Your task to perform on an android device: Turn off the flashlight Image 0: 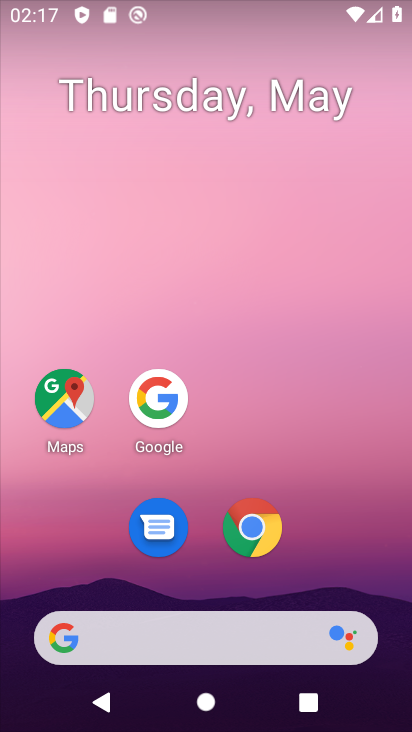
Step 0: drag from (191, 592) to (202, 136)
Your task to perform on an android device: Turn off the flashlight Image 1: 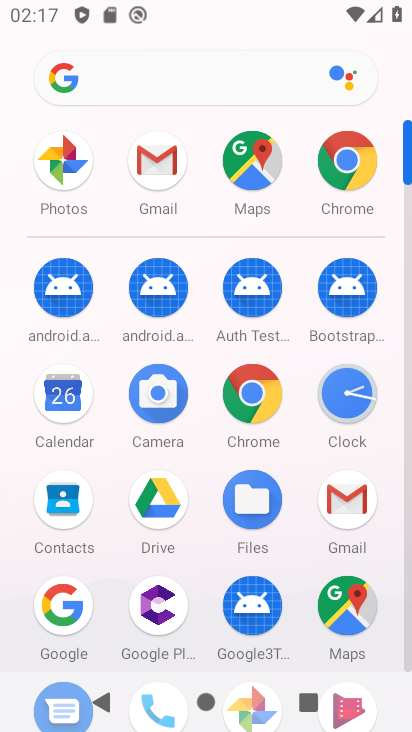
Step 1: drag from (193, 574) to (231, 200)
Your task to perform on an android device: Turn off the flashlight Image 2: 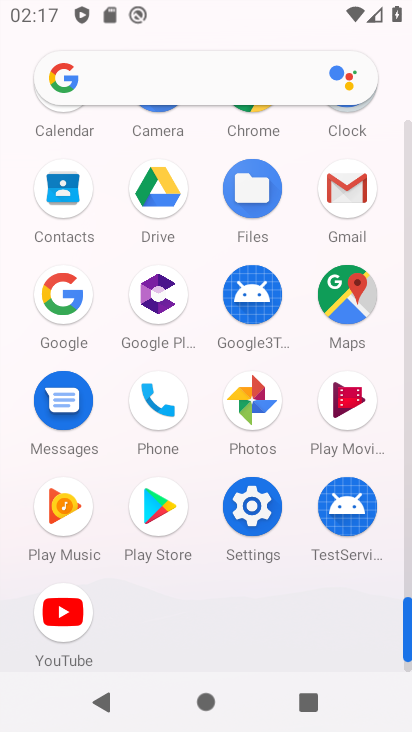
Step 2: click (240, 500)
Your task to perform on an android device: Turn off the flashlight Image 3: 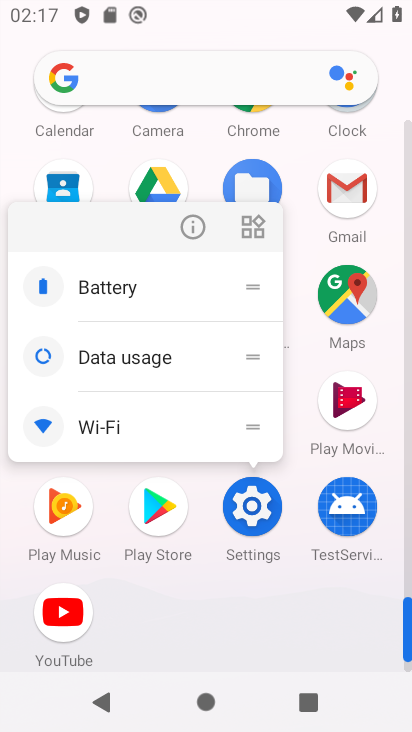
Step 3: click (192, 218)
Your task to perform on an android device: Turn off the flashlight Image 4: 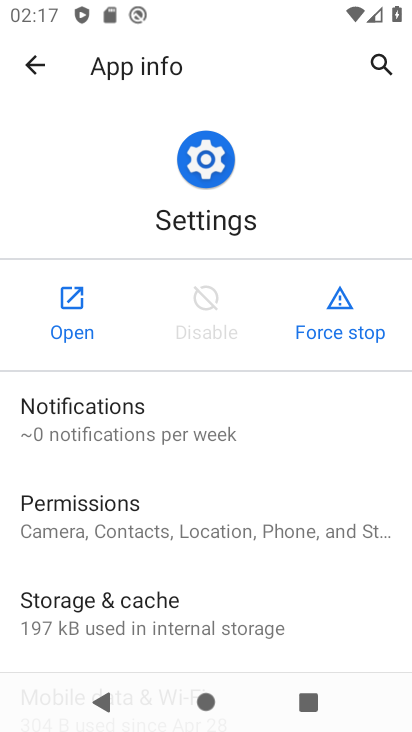
Step 4: click (63, 319)
Your task to perform on an android device: Turn off the flashlight Image 5: 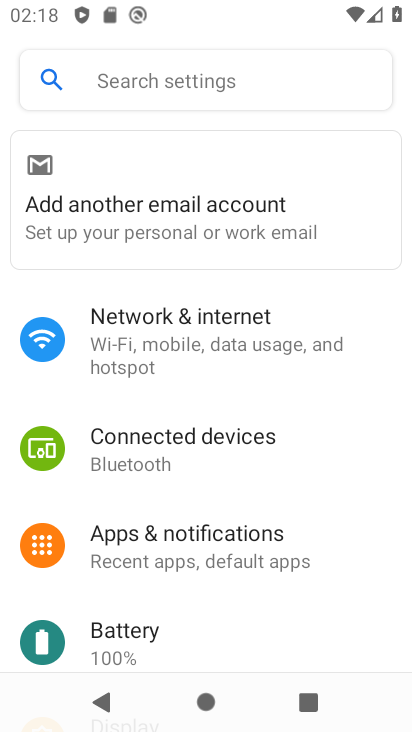
Step 5: click (192, 82)
Your task to perform on an android device: Turn off the flashlight Image 6: 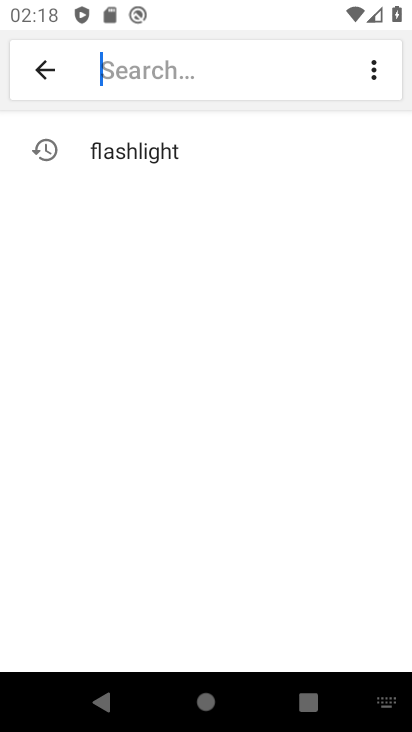
Step 6: click (137, 161)
Your task to perform on an android device: Turn off the flashlight Image 7: 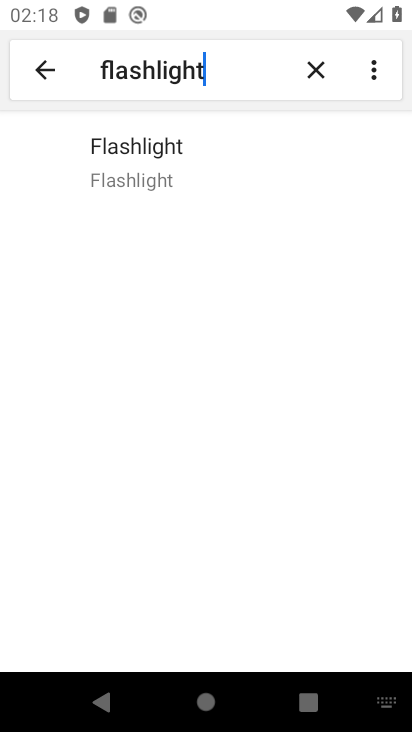
Step 7: click (170, 163)
Your task to perform on an android device: Turn off the flashlight Image 8: 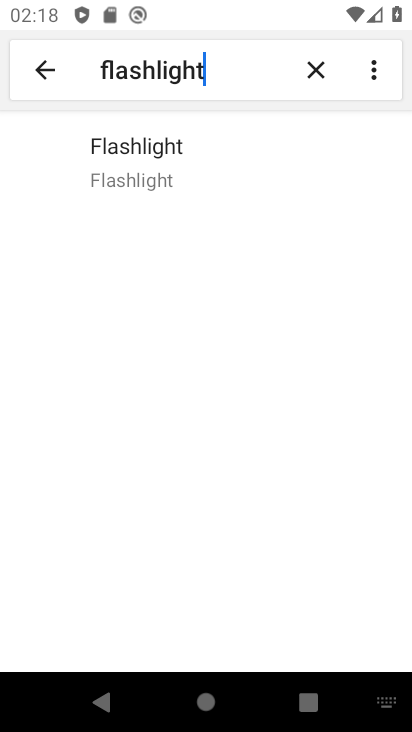
Step 8: task complete